Your task to perform on an android device: snooze an email in the gmail app Image 0: 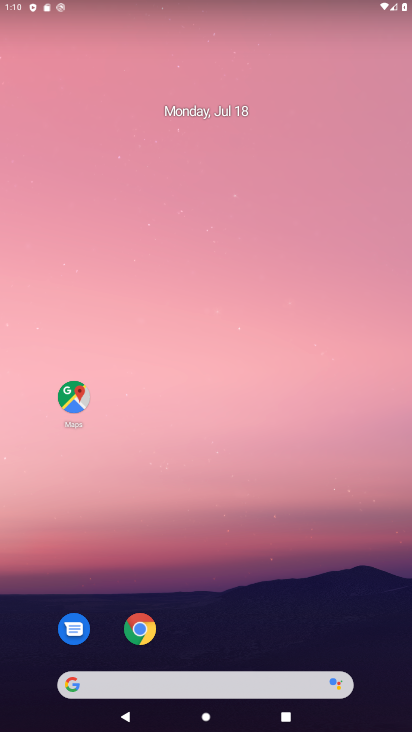
Step 0: drag from (230, 621) to (402, 25)
Your task to perform on an android device: snooze an email in the gmail app Image 1: 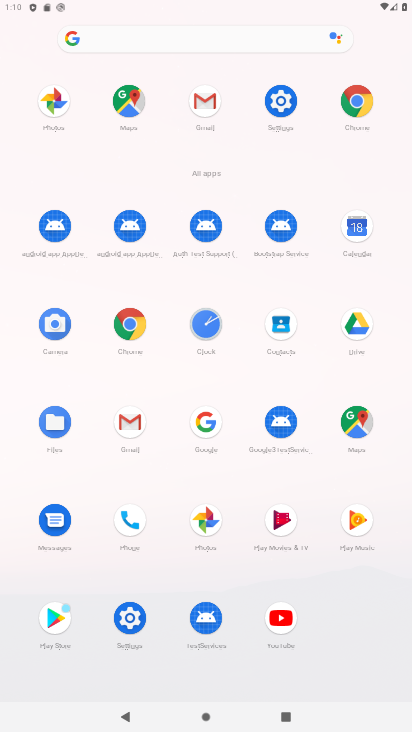
Step 1: click (199, 158)
Your task to perform on an android device: snooze an email in the gmail app Image 2: 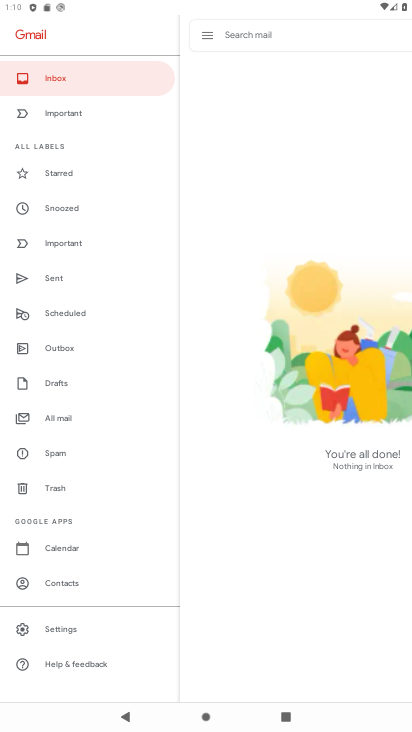
Step 2: task complete